Your task to perform on an android device: Search for sushi restaurants on Maps Image 0: 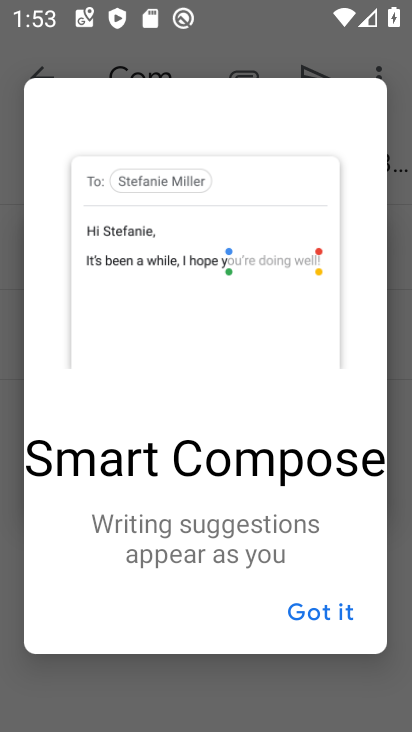
Step 0: press home button
Your task to perform on an android device: Search for sushi restaurants on Maps Image 1: 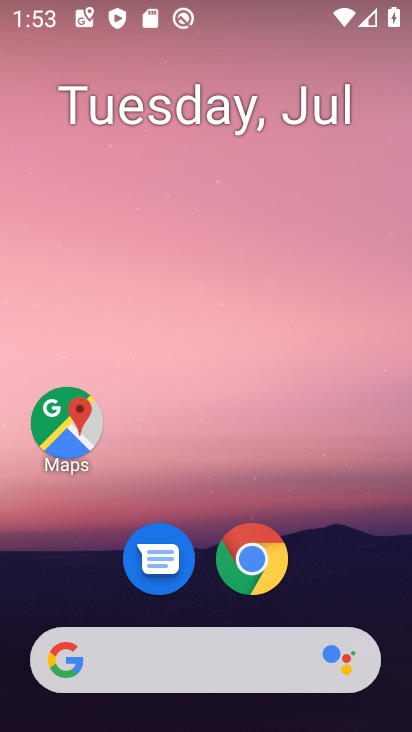
Step 1: drag from (358, 570) to (386, 107)
Your task to perform on an android device: Search for sushi restaurants on Maps Image 2: 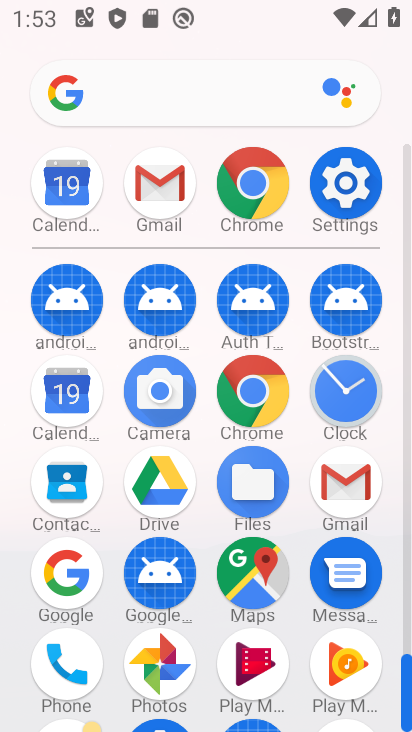
Step 2: click (246, 571)
Your task to perform on an android device: Search for sushi restaurants on Maps Image 3: 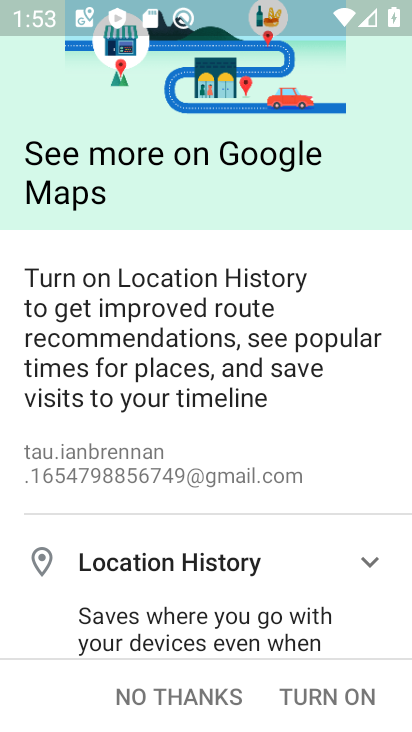
Step 3: press back button
Your task to perform on an android device: Search for sushi restaurants on Maps Image 4: 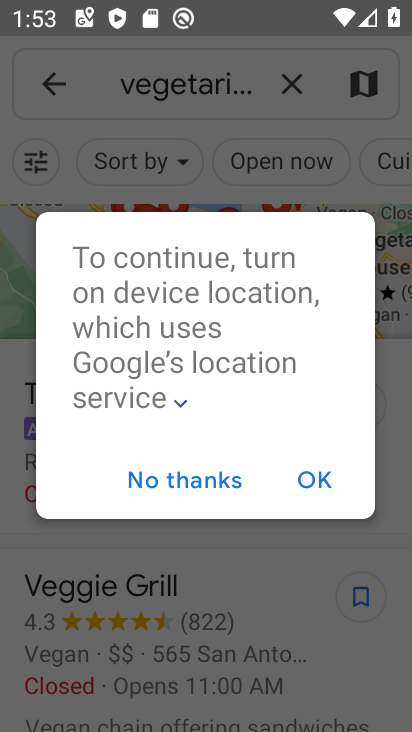
Step 4: click (237, 470)
Your task to perform on an android device: Search for sushi restaurants on Maps Image 5: 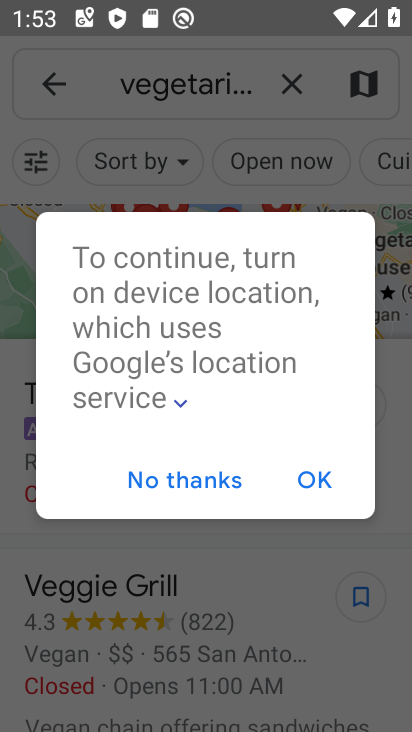
Step 5: click (168, 473)
Your task to perform on an android device: Search for sushi restaurants on Maps Image 6: 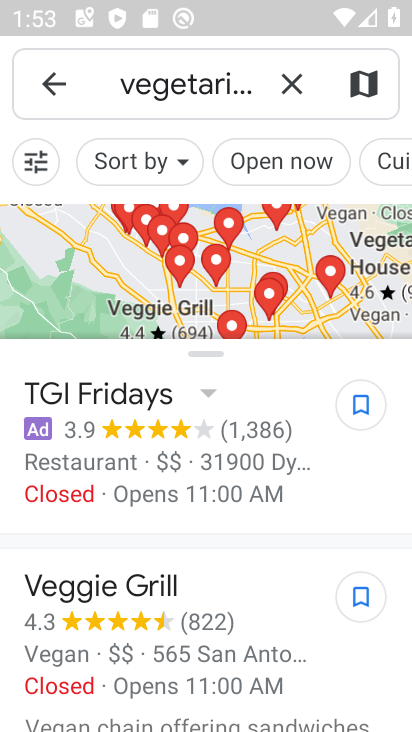
Step 6: press back button
Your task to perform on an android device: Search for sushi restaurants on Maps Image 7: 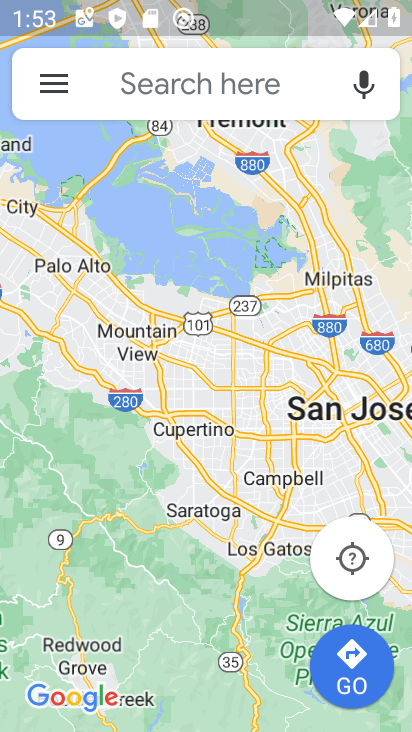
Step 7: click (231, 86)
Your task to perform on an android device: Search for sushi restaurants on Maps Image 8: 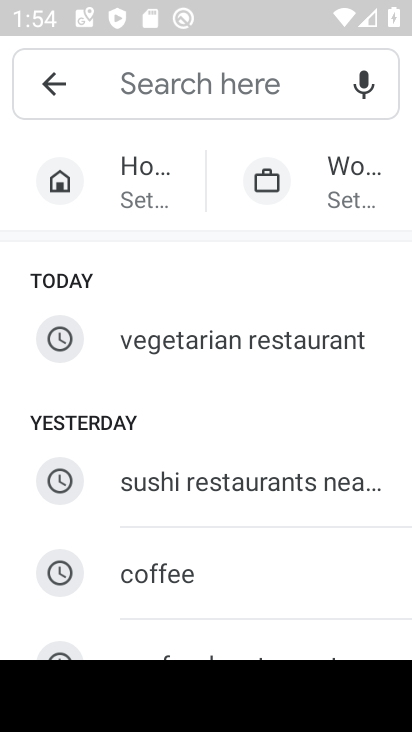
Step 8: type "sushi restaurants"
Your task to perform on an android device: Search for sushi restaurants on Maps Image 9: 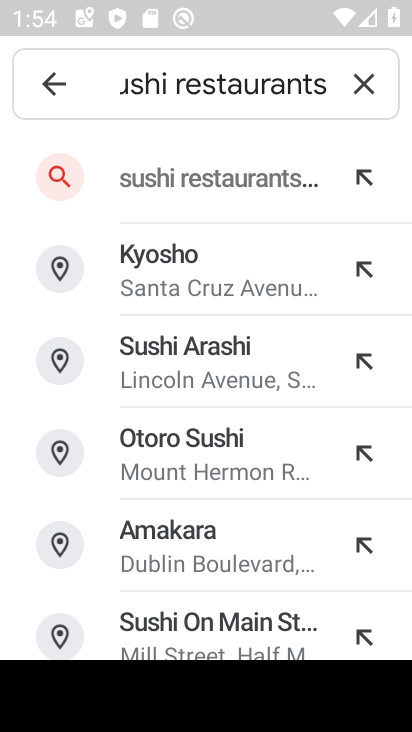
Step 9: click (219, 185)
Your task to perform on an android device: Search for sushi restaurants on Maps Image 10: 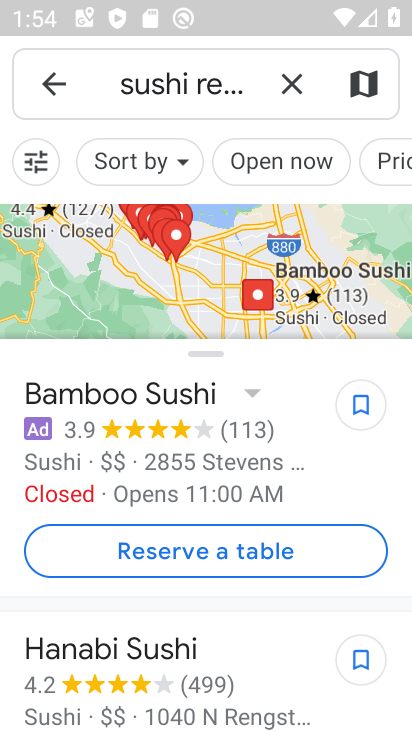
Step 10: task complete